Your task to perform on an android device: Open Google Image 0: 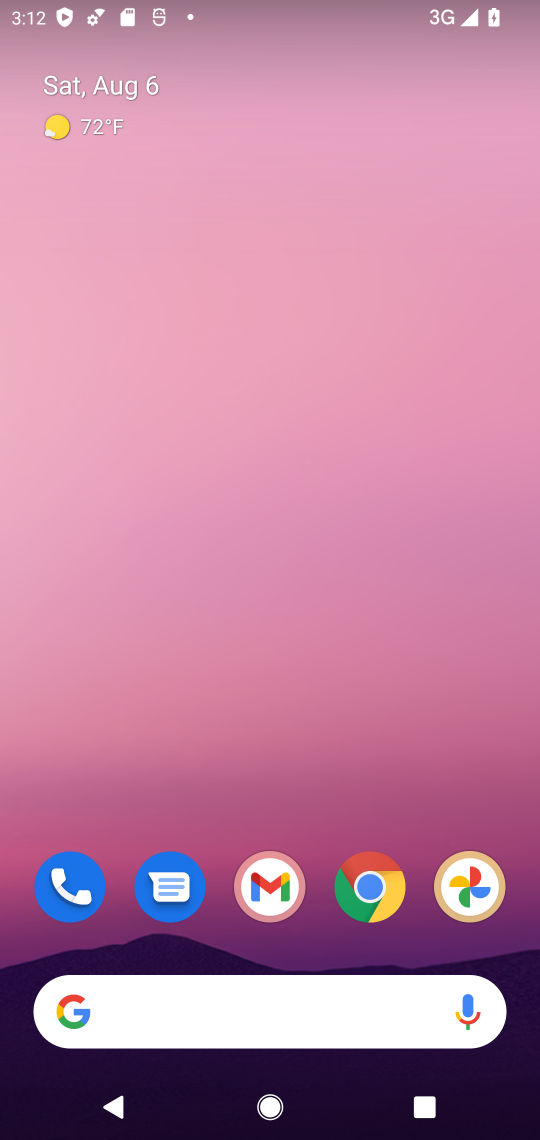
Step 0: press home button
Your task to perform on an android device: Open Google Image 1: 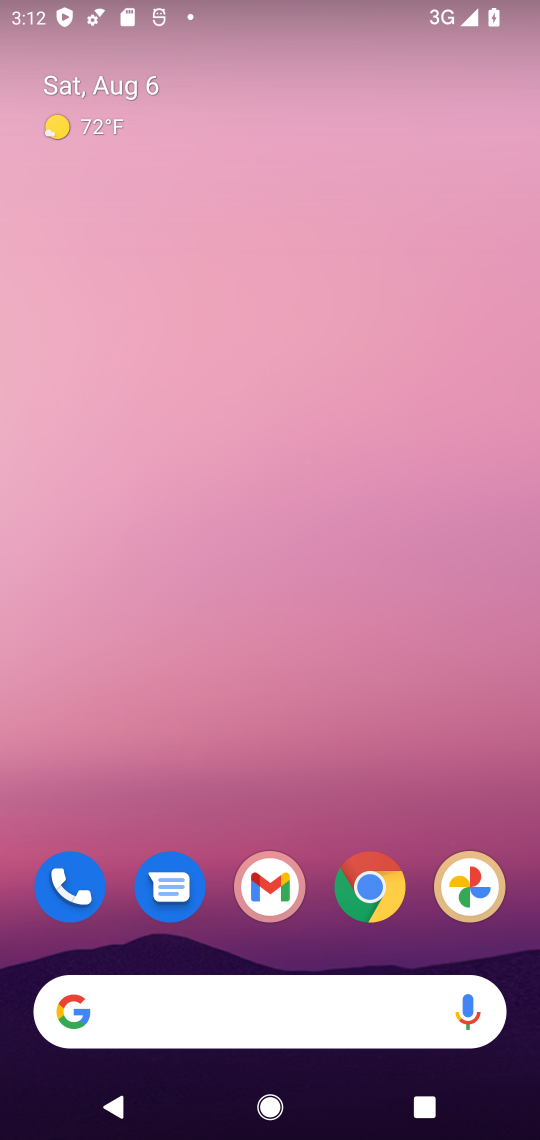
Step 1: drag from (428, 821) to (419, 299)
Your task to perform on an android device: Open Google Image 2: 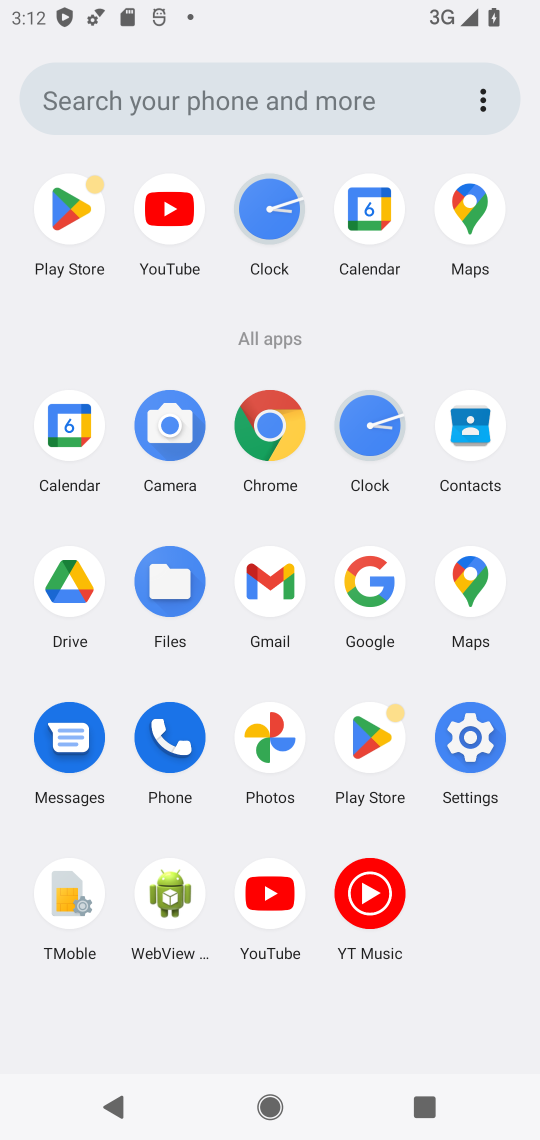
Step 2: click (362, 579)
Your task to perform on an android device: Open Google Image 3: 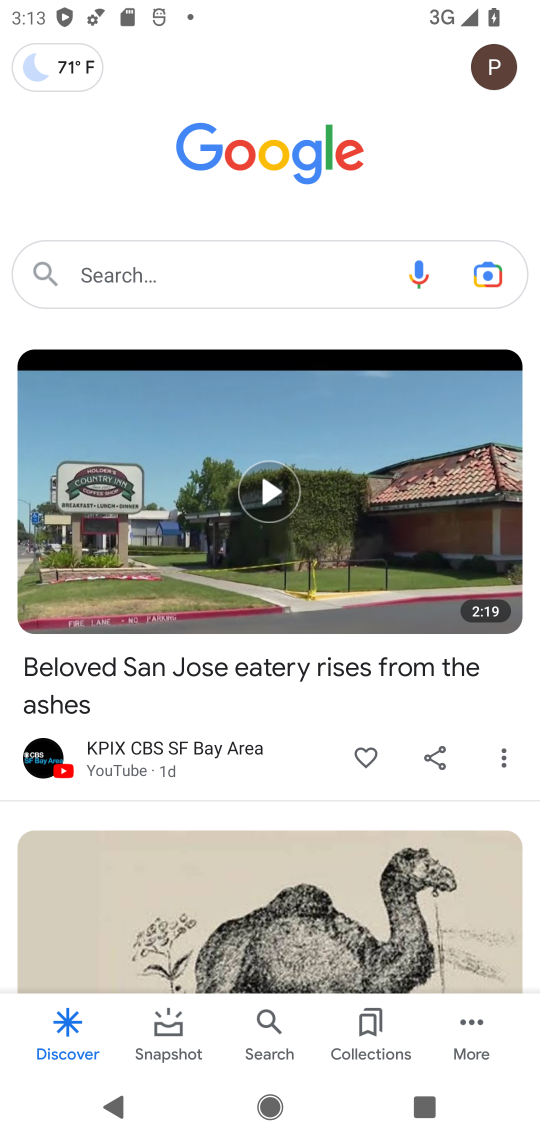
Step 3: task complete